Your task to perform on an android device: check battery use Image 0: 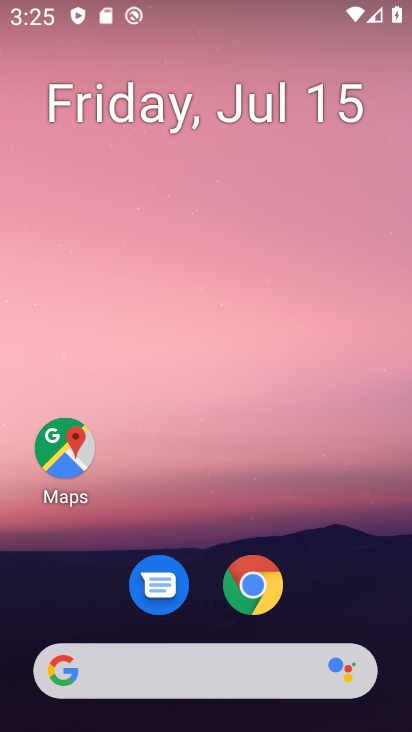
Step 0: drag from (250, 651) to (260, 130)
Your task to perform on an android device: check battery use Image 1: 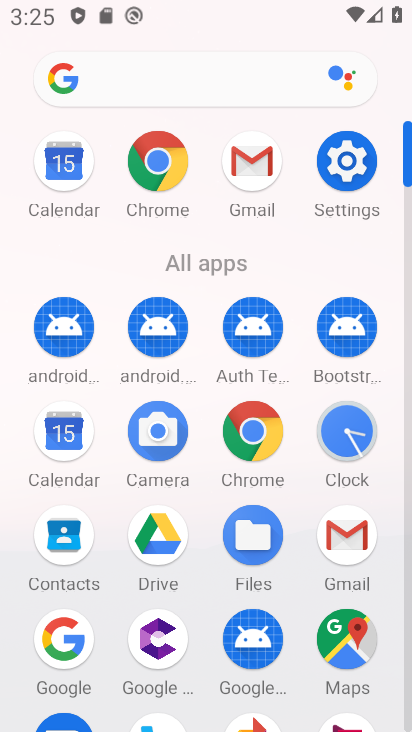
Step 1: click (336, 177)
Your task to perform on an android device: check battery use Image 2: 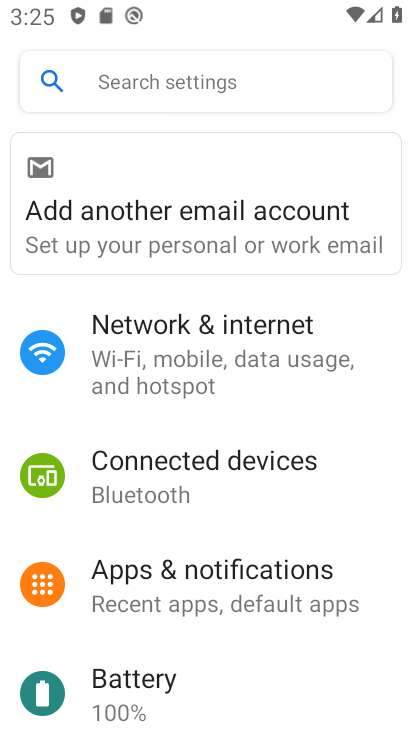
Step 2: drag from (212, 587) to (157, 90)
Your task to perform on an android device: check battery use Image 3: 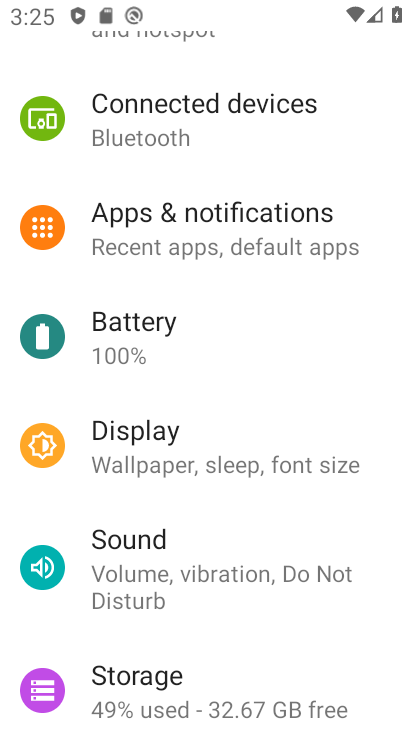
Step 3: click (117, 353)
Your task to perform on an android device: check battery use Image 4: 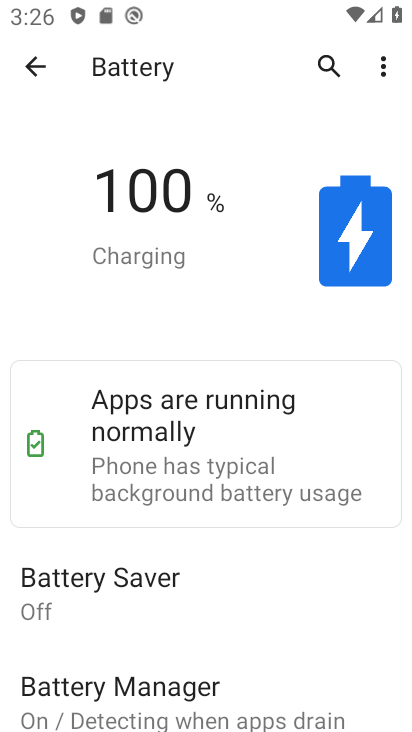
Step 4: click (382, 75)
Your task to perform on an android device: check battery use Image 5: 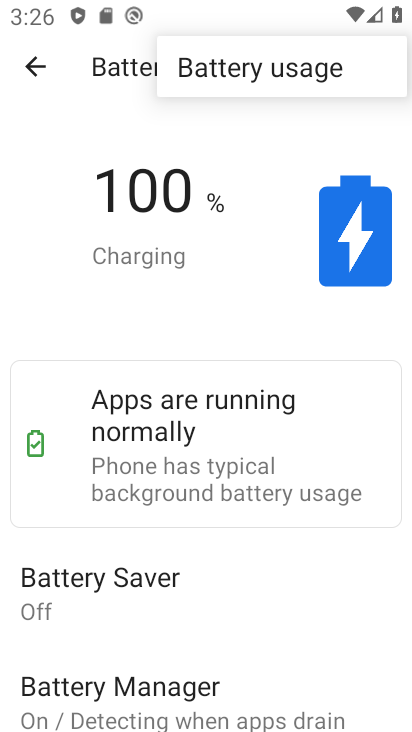
Step 5: click (320, 76)
Your task to perform on an android device: check battery use Image 6: 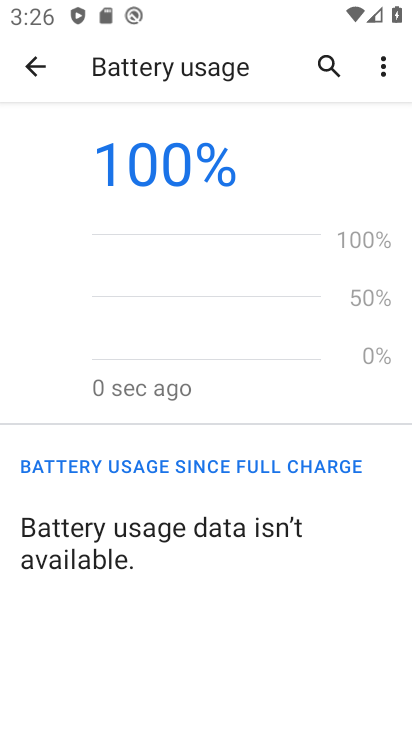
Step 6: task complete